Your task to perform on an android device: Open network settings Image 0: 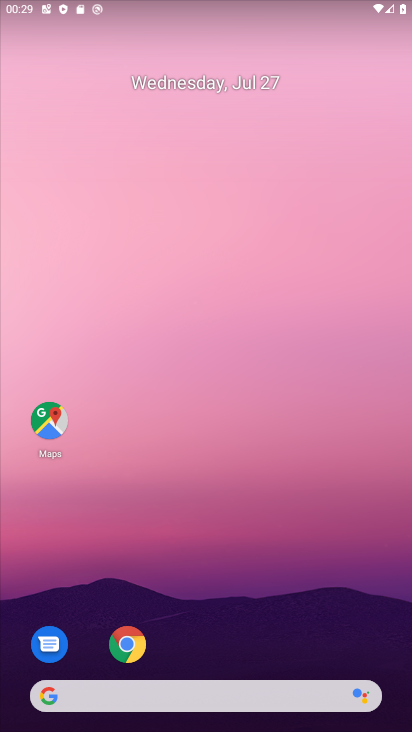
Step 0: drag from (281, 435) to (302, 207)
Your task to perform on an android device: Open network settings Image 1: 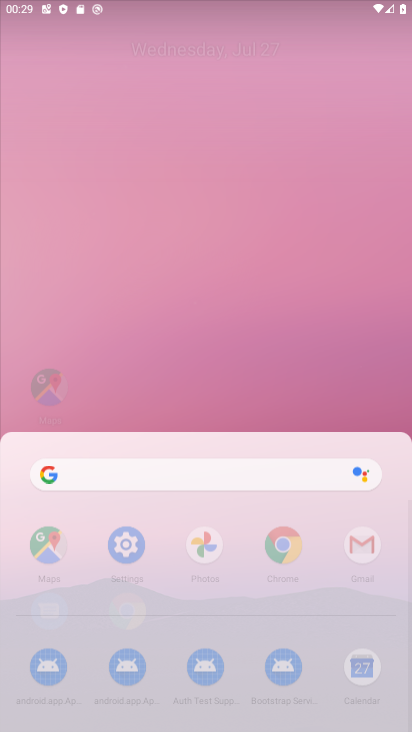
Step 1: drag from (277, 492) to (272, 221)
Your task to perform on an android device: Open network settings Image 2: 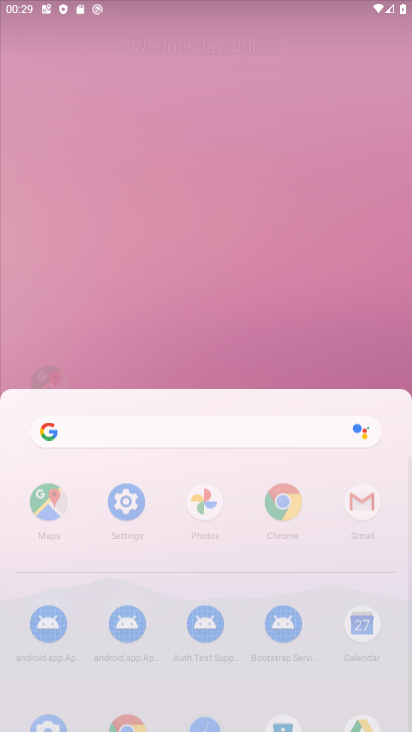
Step 2: drag from (175, 601) to (181, 395)
Your task to perform on an android device: Open network settings Image 3: 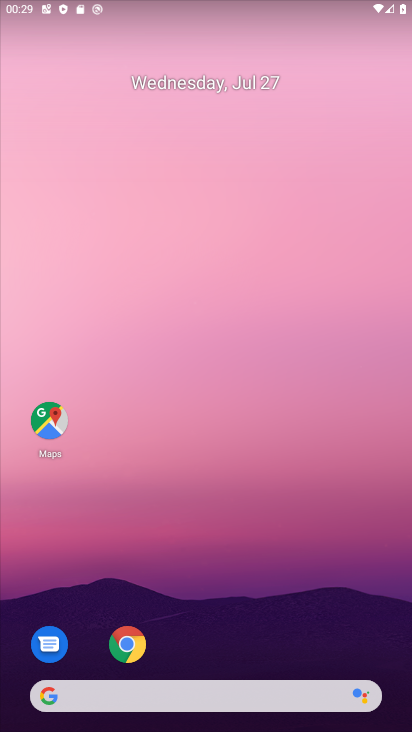
Step 3: drag from (191, 547) to (170, 399)
Your task to perform on an android device: Open network settings Image 4: 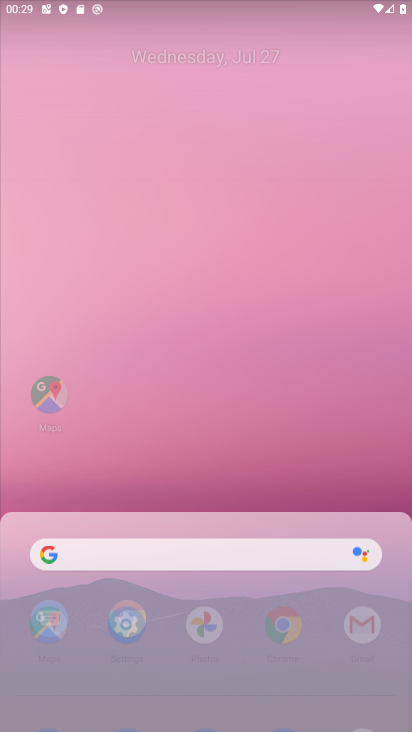
Step 4: drag from (200, 710) to (216, 496)
Your task to perform on an android device: Open network settings Image 5: 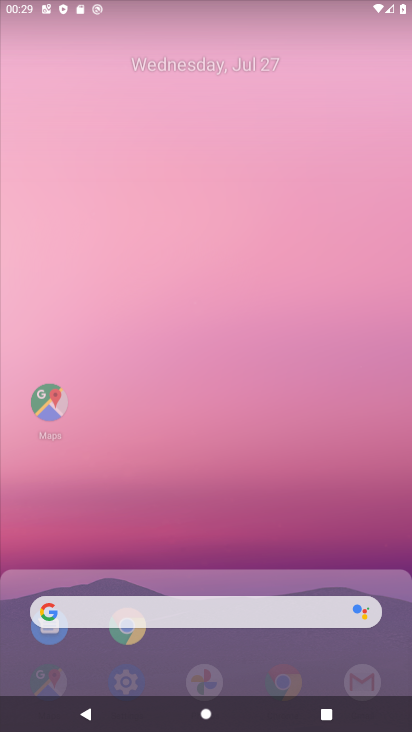
Step 5: click (251, 431)
Your task to perform on an android device: Open network settings Image 6: 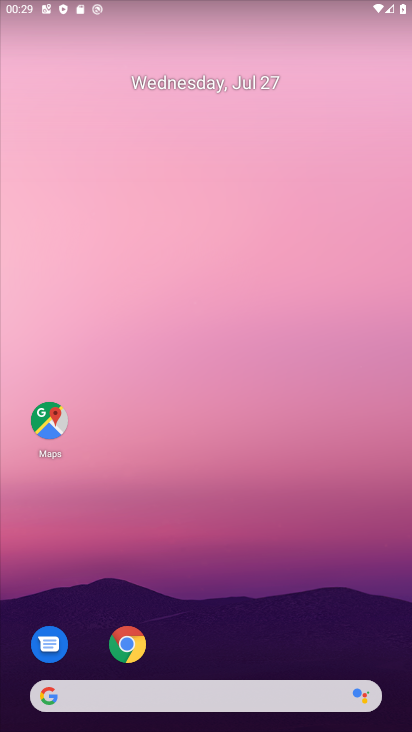
Step 6: drag from (206, 346) to (199, 275)
Your task to perform on an android device: Open network settings Image 7: 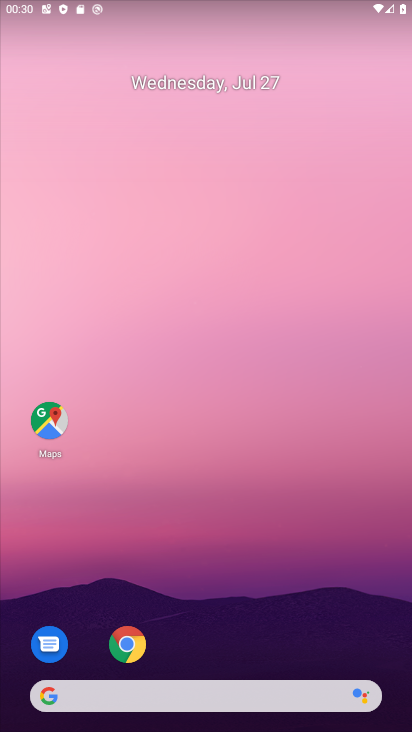
Step 7: drag from (273, 585) to (251, 154)
Your task to perform on an android device: Open network settings Image 8: 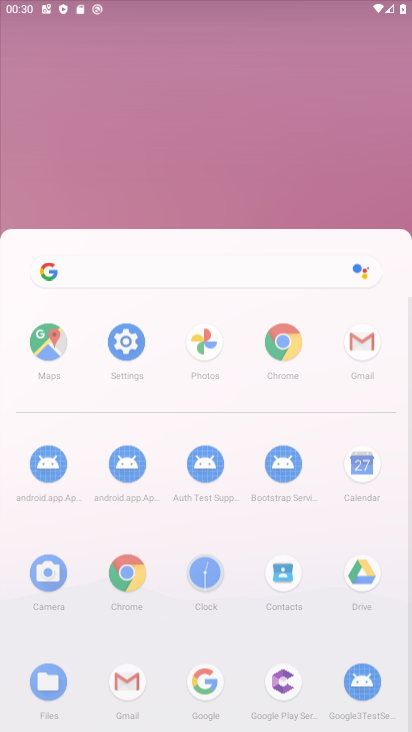
Step 8: drag from (232, 474) to (226, 153)
Your task to perform on an android device: Open network settings Image 9: 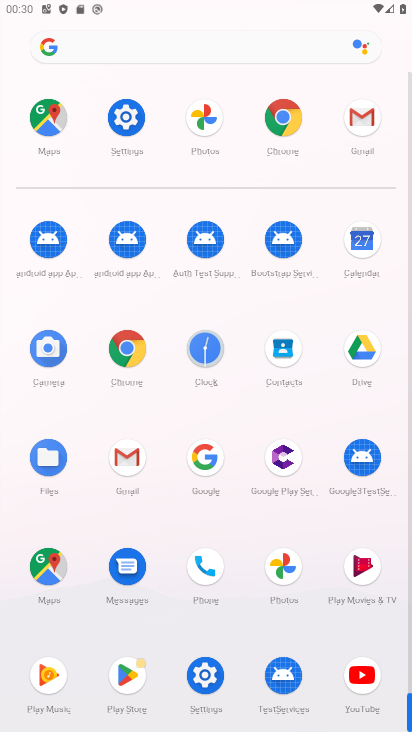
Step 9: click (134, 130)
Your task to perform on an android device: Open network settings Image 10: 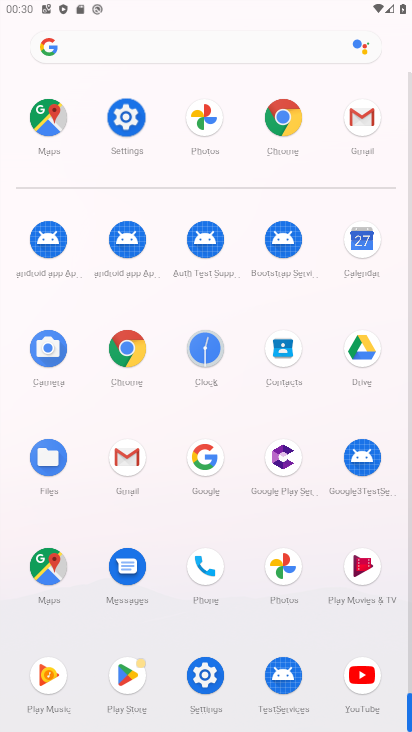
Step 10: click (135, 122)
Your task to perform on an android device: Open network settings Image 11: 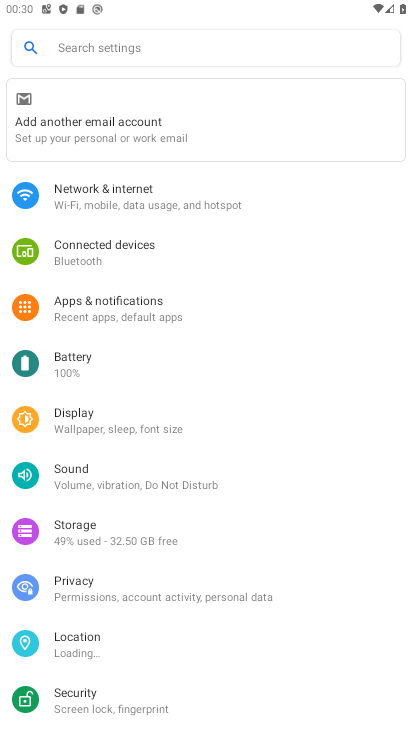
Step 11: click (127, 193)
Your task to perform on an android device: Open network settings Image 12: 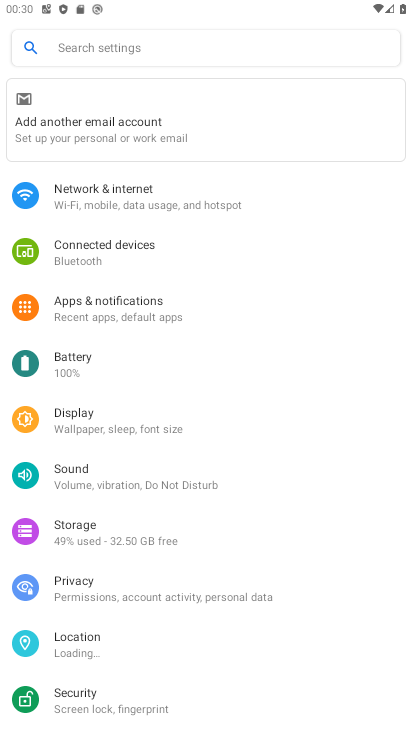
Step 12: click (127, 193)
Your task to perform on an android device: Open network settings Image 13: 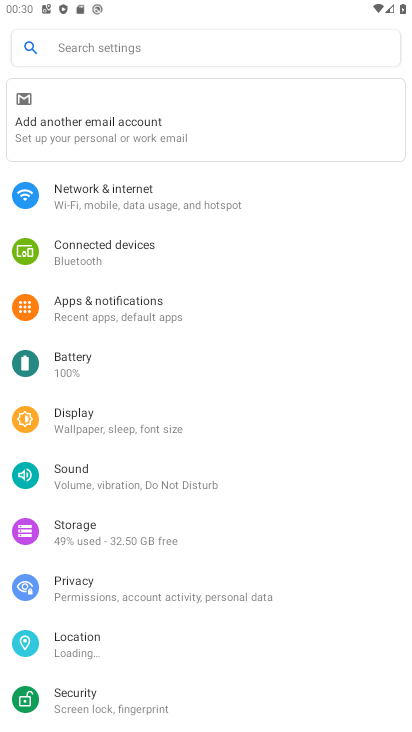
Step 13: click (129, 191)
Your task to perform on an android device: Open network settings Image 14: 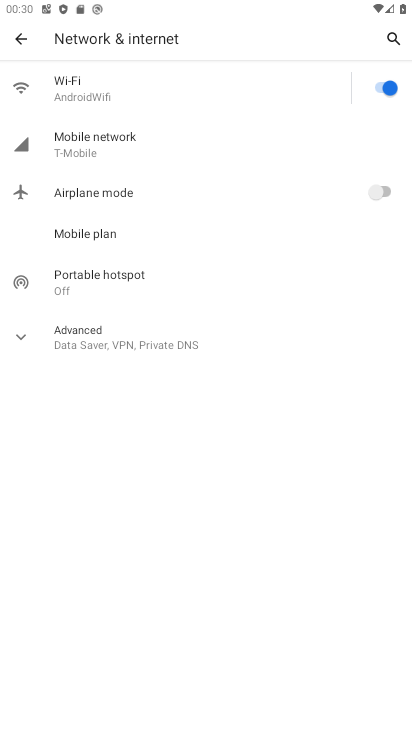
Step 14: task complete